Your task to perform on an android device: Go to notification settings Image 0: 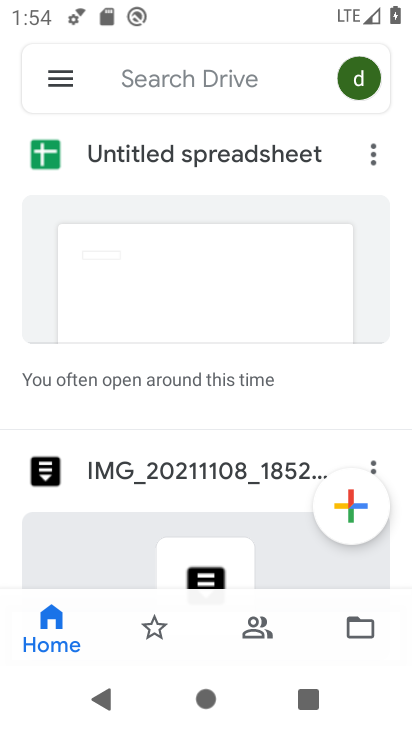
Step 0: press home button
Your task to perform on an android device: Go to notification settings Image 1: 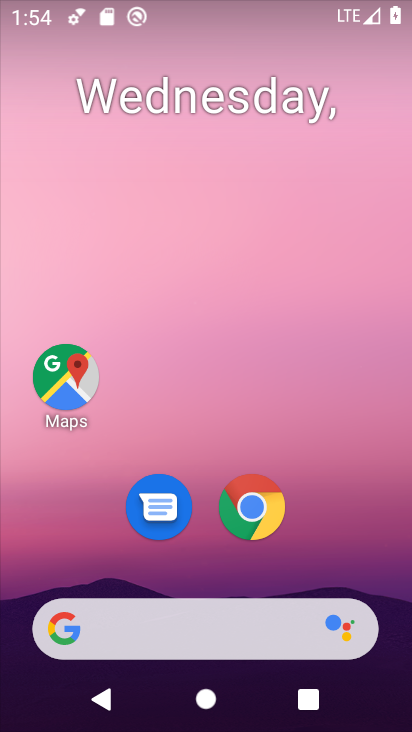
Step 1: drag from (311, 551) to (338, 69)
Your task to perform on an android device: Go to notification settings Image 2: 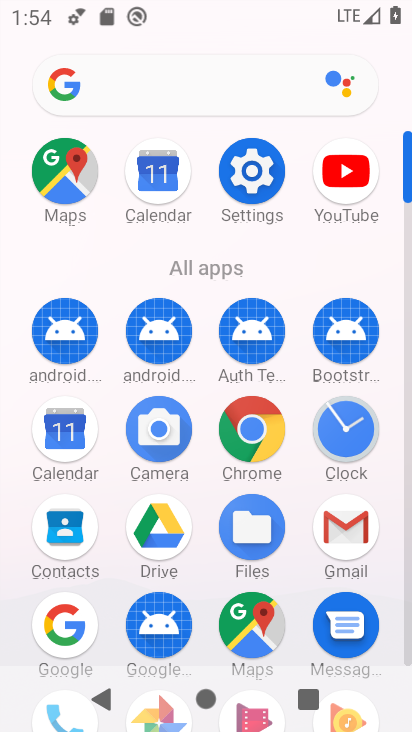
Step 2: click (235, 181)
Your task to perform on an android device: Go to notification settings Image 3: 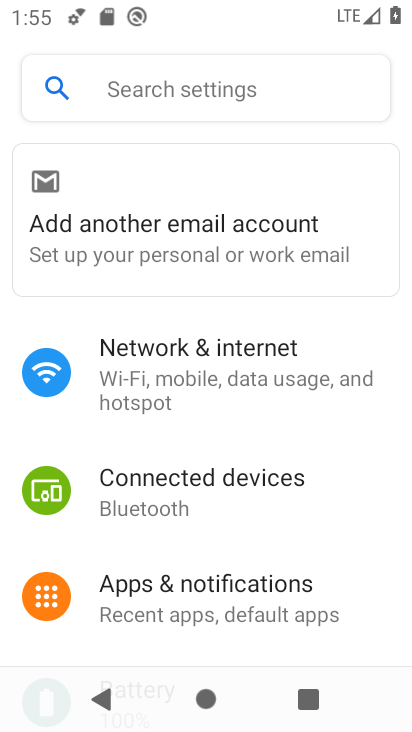
Step 3: drag from (207, 575) to (215, 319)
Your task to perform on an android device: Go to notification settings Image 4: 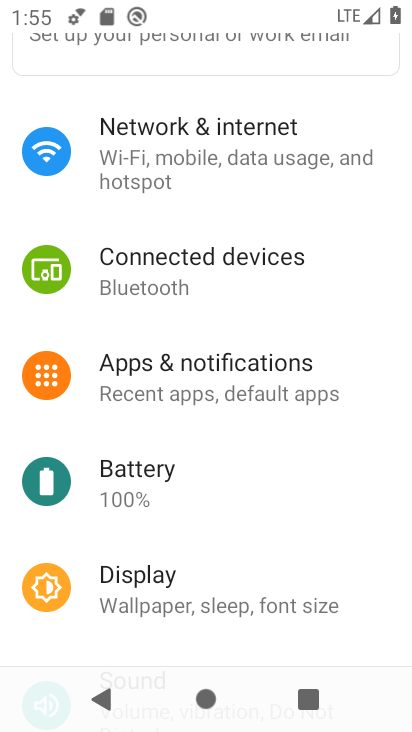
Step 4: click (197, 356)
Your task to perform on an android device: Go to notification settings Image 5: 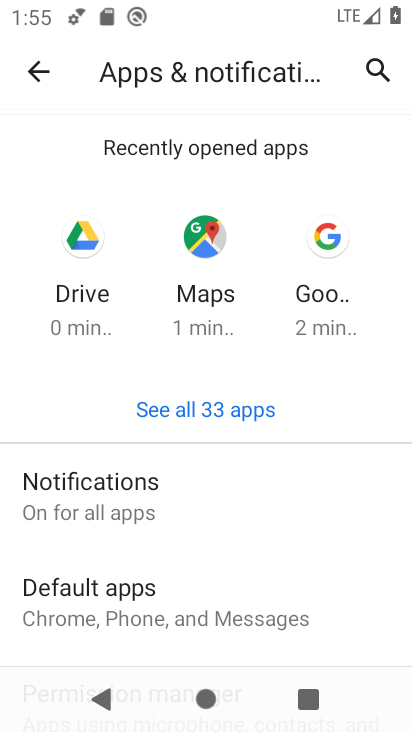
Step 5: click (194, 489)
Your task to perform on an android device: Go to notification settings Image 6: 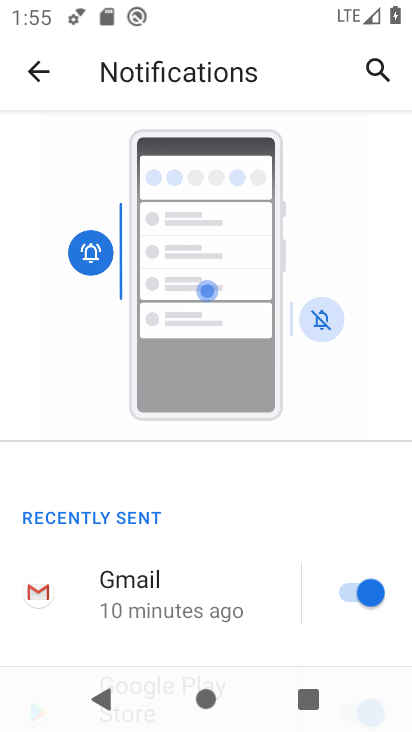
Step 6: task complete